Your task to perform on an android device: change notifications settings Image 0: 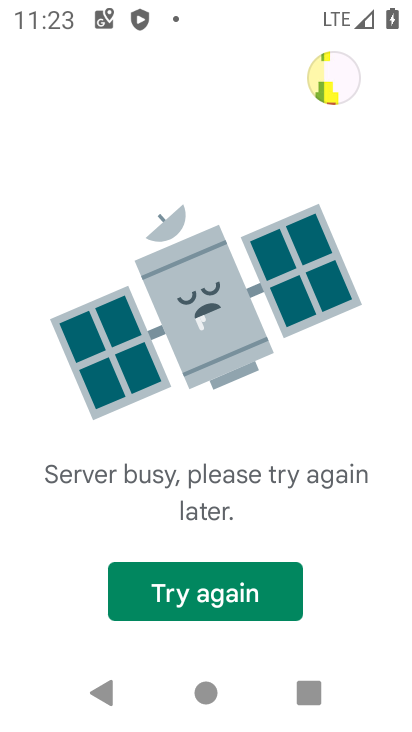
Step 0: press home button
Your task to perform on an android device: change notifications settings Image 1: 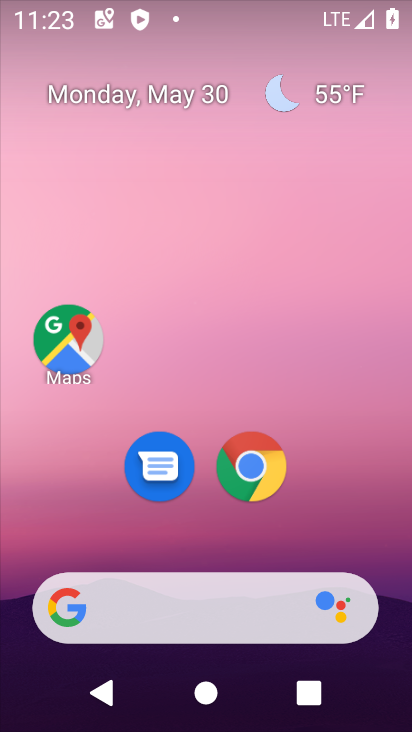
Step 1: drag from (345, 531) to (411, 109)
Your task to perform on an android device: change notifications settings Image 2: 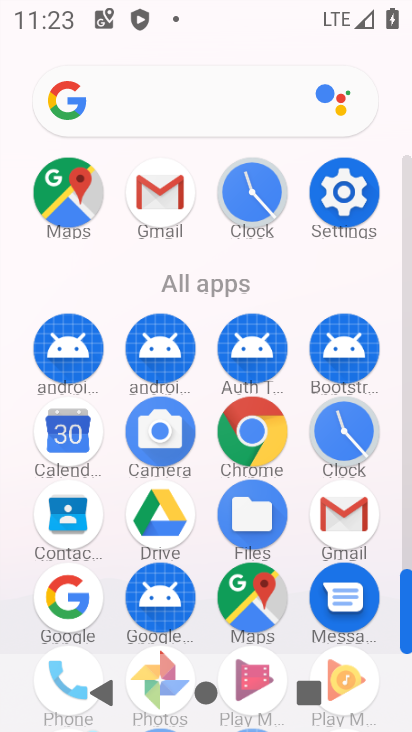
Step 2: click (361, 204)
Your task to perform on an android device: change notifications settings Image 3: 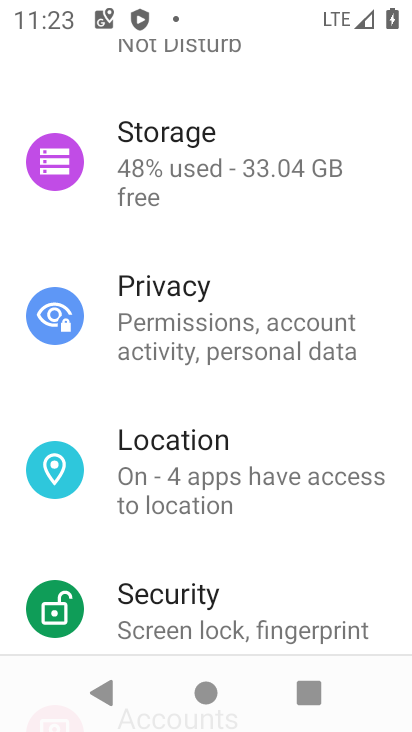
Step 3: drag from (282, 581) to (285, 731)
Your task to perform on an android device: change notifications settings Image 4: 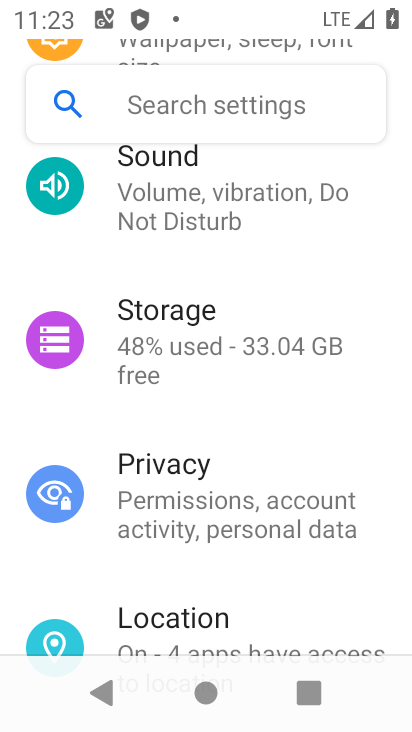
Step 4: drag from (296, 209) to (256, 713)
Your task to perform on an android device: change notifications settings Image 5: 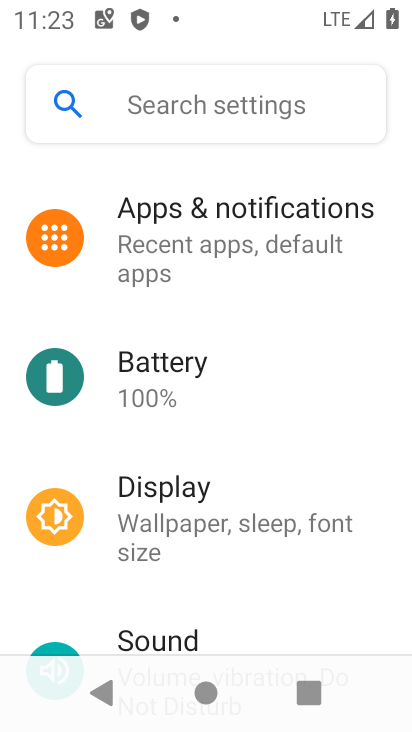
Step 5: click (254, 216)
Your task to perform on an android device: change notifications settings Image 6: 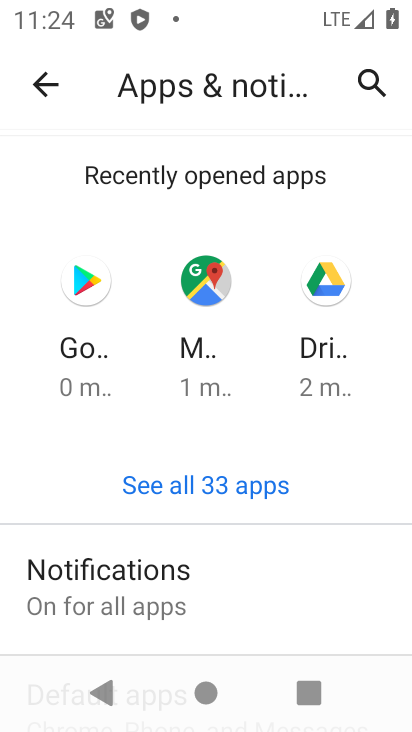
Step 6: click (226, 589)
Your task to perform on an android device: change notifications settings Image 7: 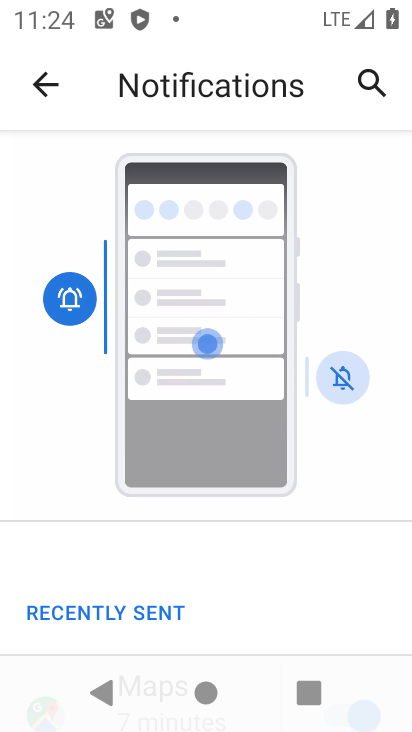
Step 7: task complete